Your task to perform on an android device: Search for seafood restaurants on Google Maps Image 0: 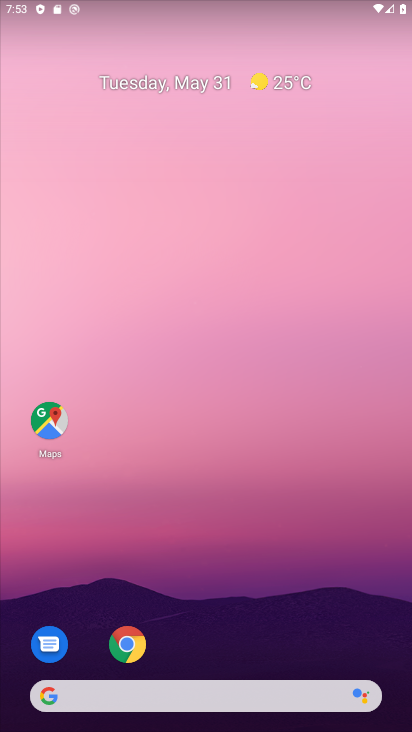
Step 0: press home button
Your task to perform on an android device: Search for seafood restaurants on Google Maps Image 1: 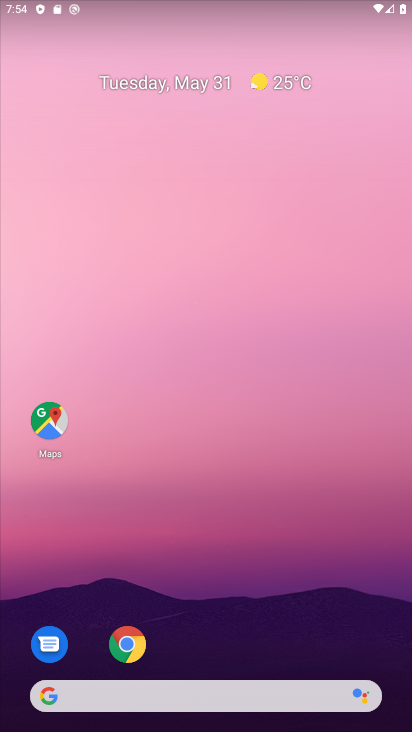
Step 1: drag from (264, 721) to (308, 210)
Your task to perform on an android device: Search for seafood restaurants on Google Maps Image 2: 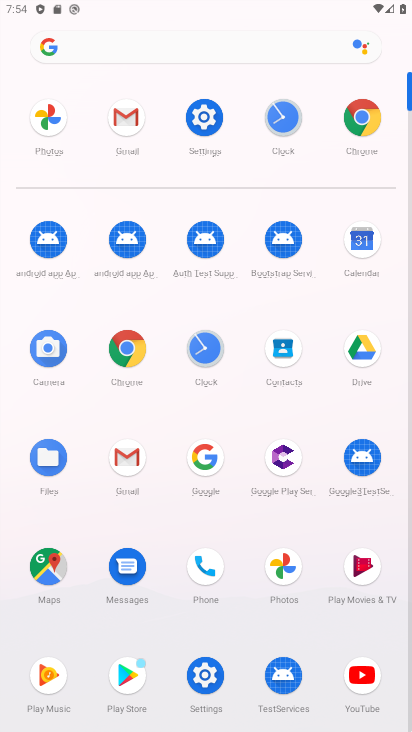
Step 2: click (45, 561)
Your task to perform on an android device: Search for seafood restaurants on Google Maps Image 3: 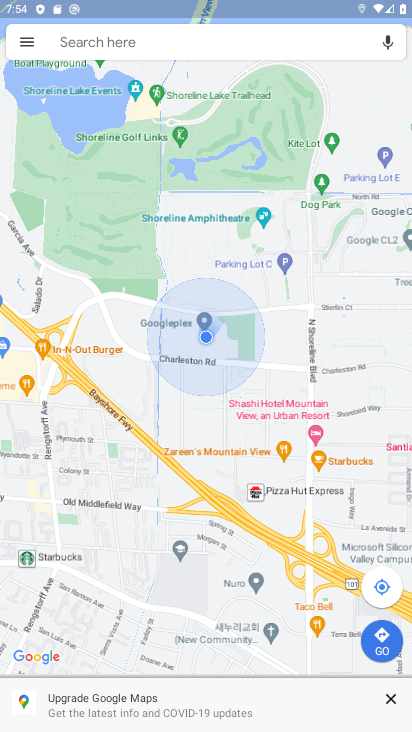
Step 3: click (117, 45)
Your task to perform on an android device: Search for seafood restaurants on Google Maps Image 4: 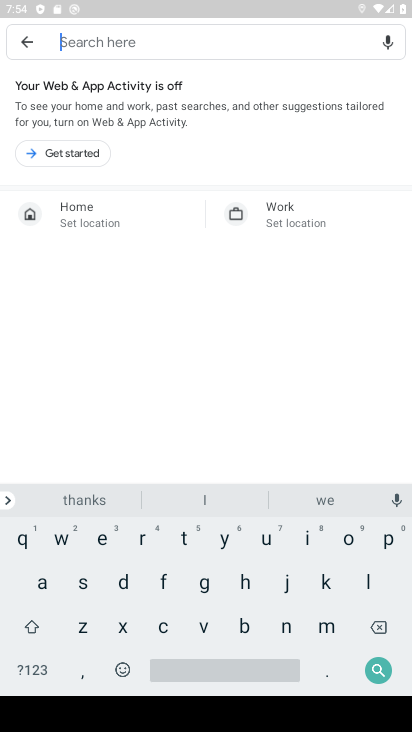
Step 4: click (77, 575)
Your task to perform on an android device: Search for seafood restaurants on Google Maps Image 5: 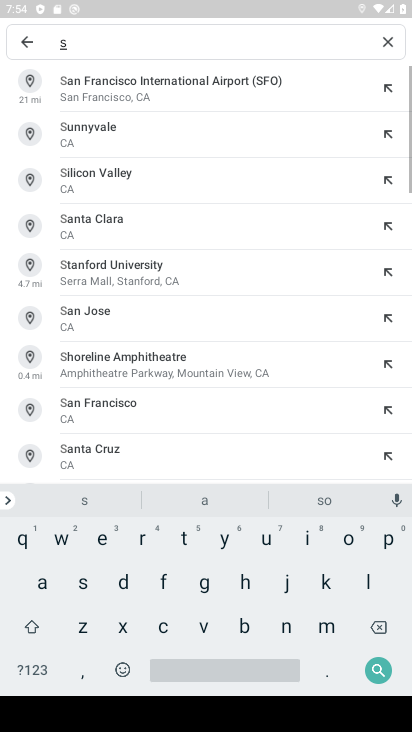
Step 5: click (100, 533)
Your task to perform on an android device: Search for seafood restaurants on Google Maps Image 6: 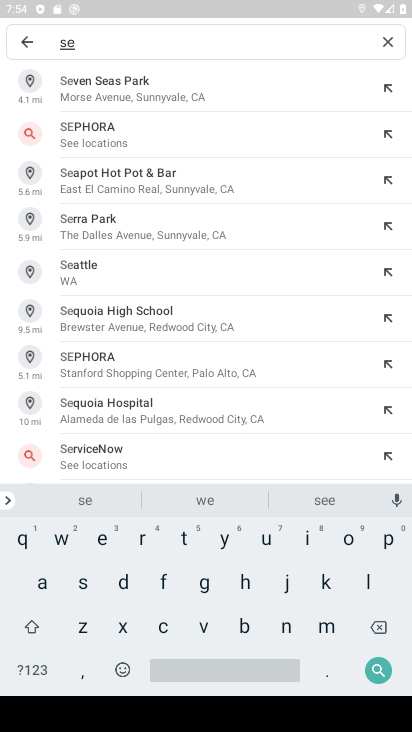
Step 6: click (32, 578)
Your task to perform on an android device: Search for seafood restaurants on Google Maps Image 7: 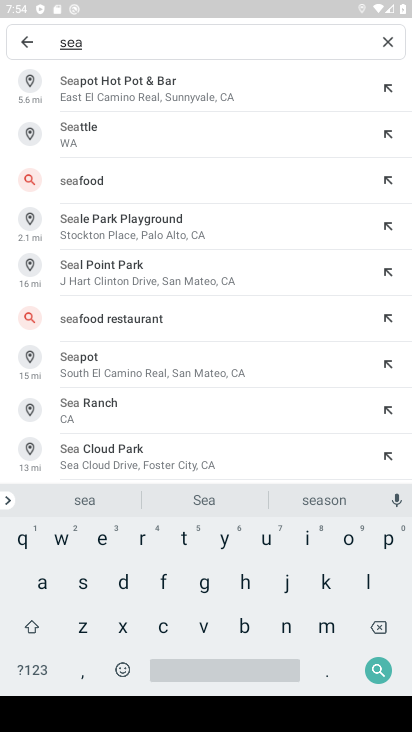
Step 7: click (130, 329)
Your task to perform on an android device: Search for seafood restaurants on Google Maps Image 8: 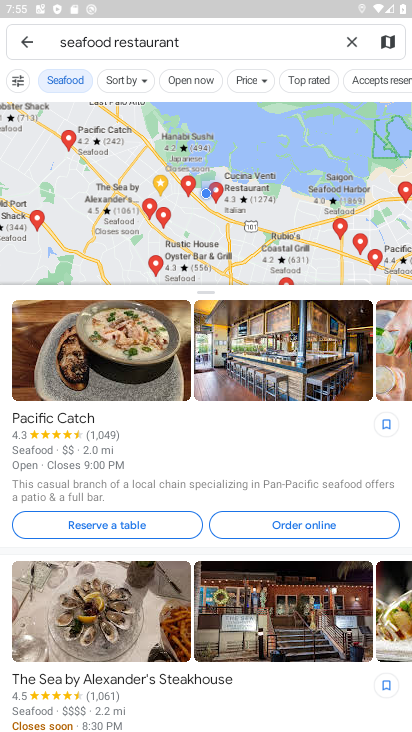
Step 8: task complete